Your task to perform on an android device: change your default location settings in chrome Image 0: 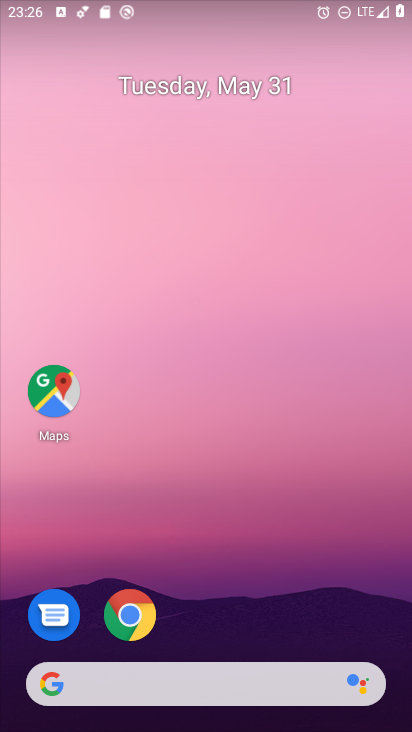
Step 0: click (135, 616)
Your task to perform on an android device: change your default location settings in chrome Image 1: 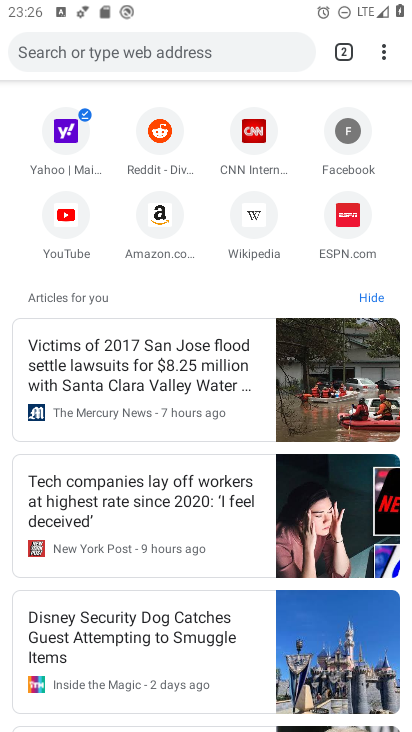
Step 1: click (381, 56)
Your task to perform on an android device: change your default location settings in chrome Image 2: 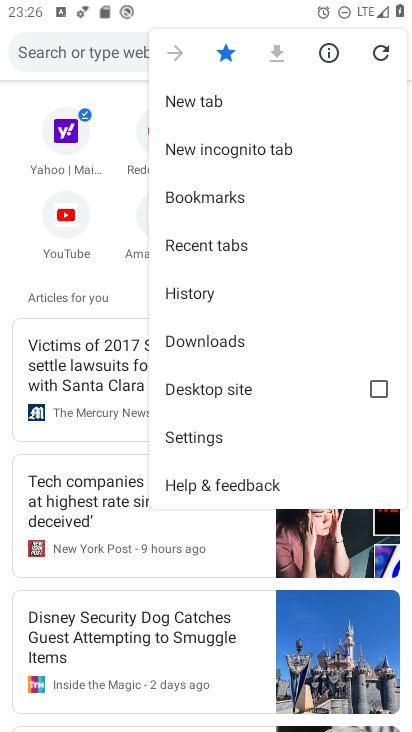
Step 2: click (207, 425)
Your task to perform on an android device: change your default location settings in chrome Image 3: 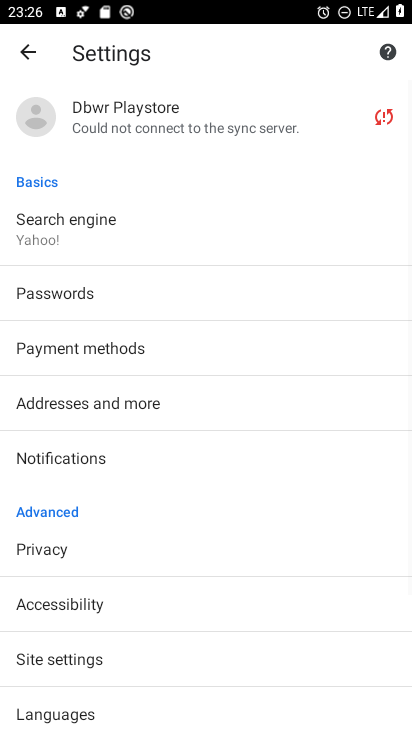
Step 3: drag from (147, 610) to (186, 284)
Your task to perform on an android device: change your default location settings in chrome Image 4: 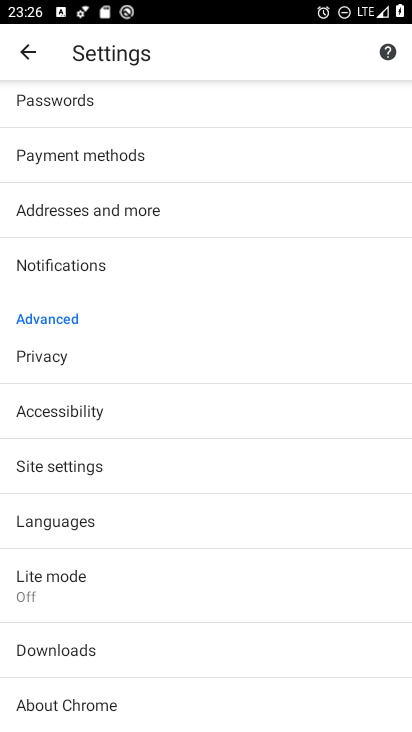
Step 4: click (50, 463)
Your task to perform on an android device: change your default location settings in chrome Image 5: 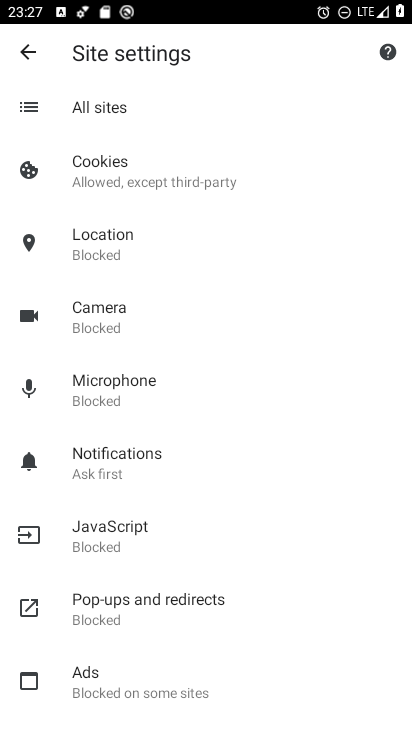
Step 5: click (94, 232)
Your task to perform on an android device: change your default location settings in chrome Image 6: 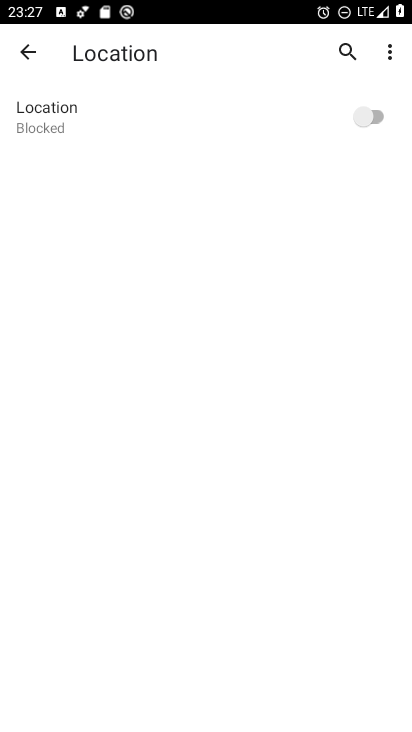
Step 6: click (380, 108)
Your task to perform on an android device: change your default location settings in chrome Image 7: 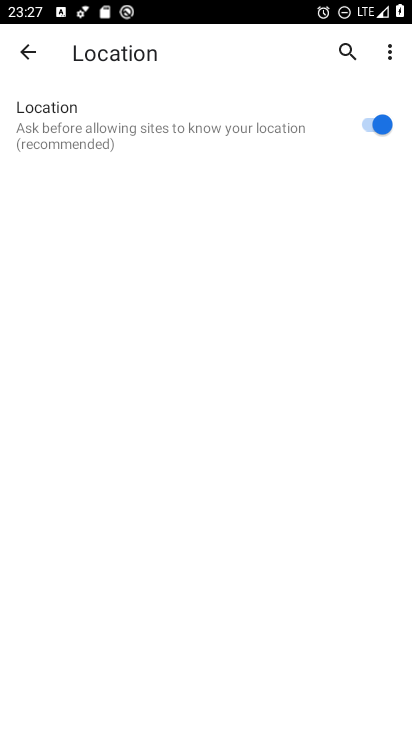
Step 7: task complete